Your task to perform on an android device: Search for custom made wallets on etsy.com Image 0: 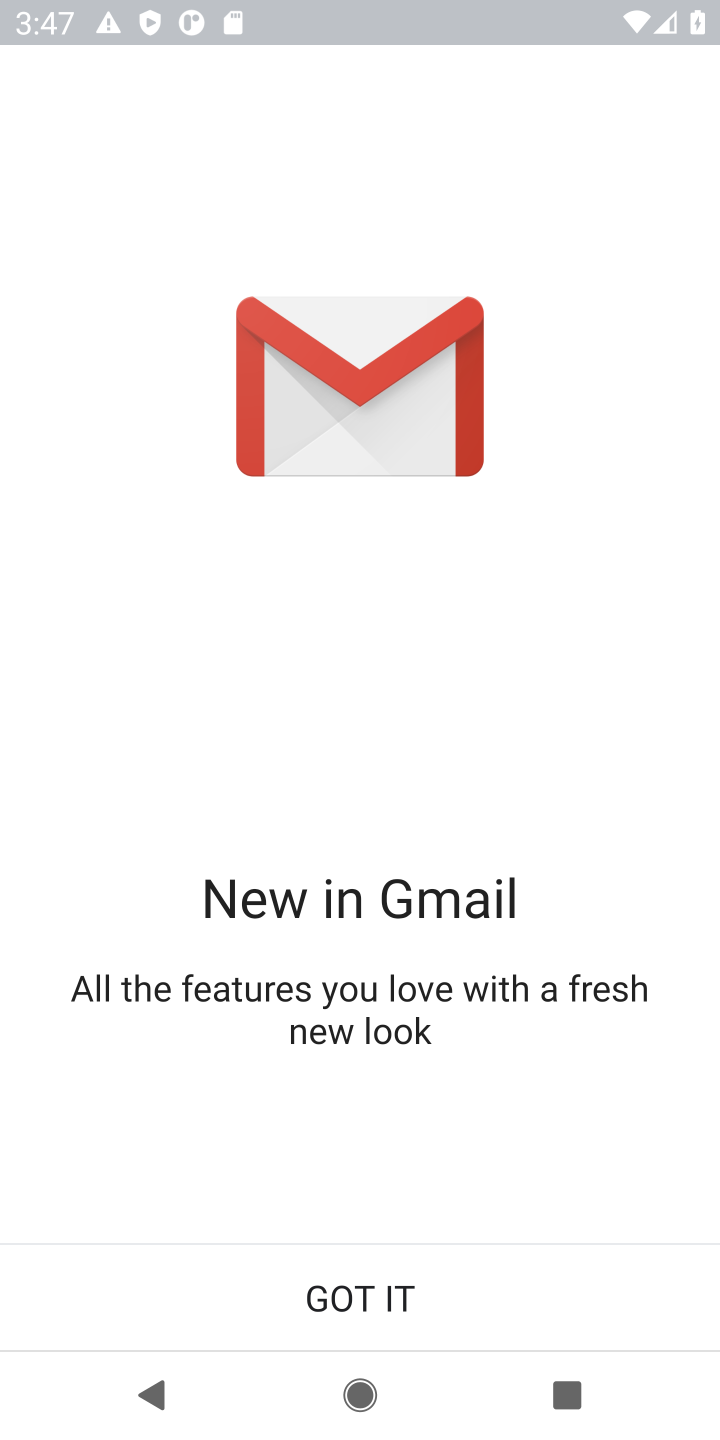
Step 0: press home button
Your task to perform on an android device: Search for custom made wallets on etsy.com Image 1: 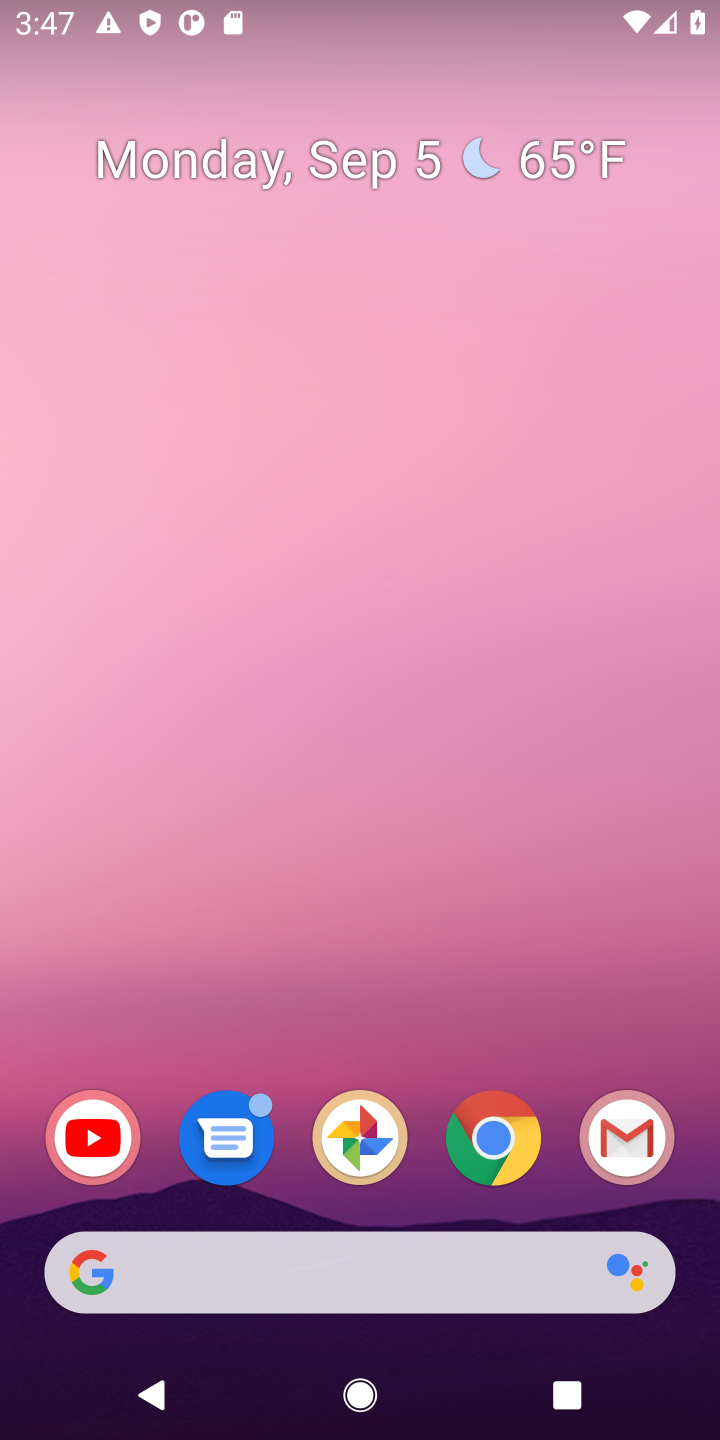
Step 1: click (498, 1143)
Your task to perform on an android device: Search for custom made wallets on etsy.com Image 2: 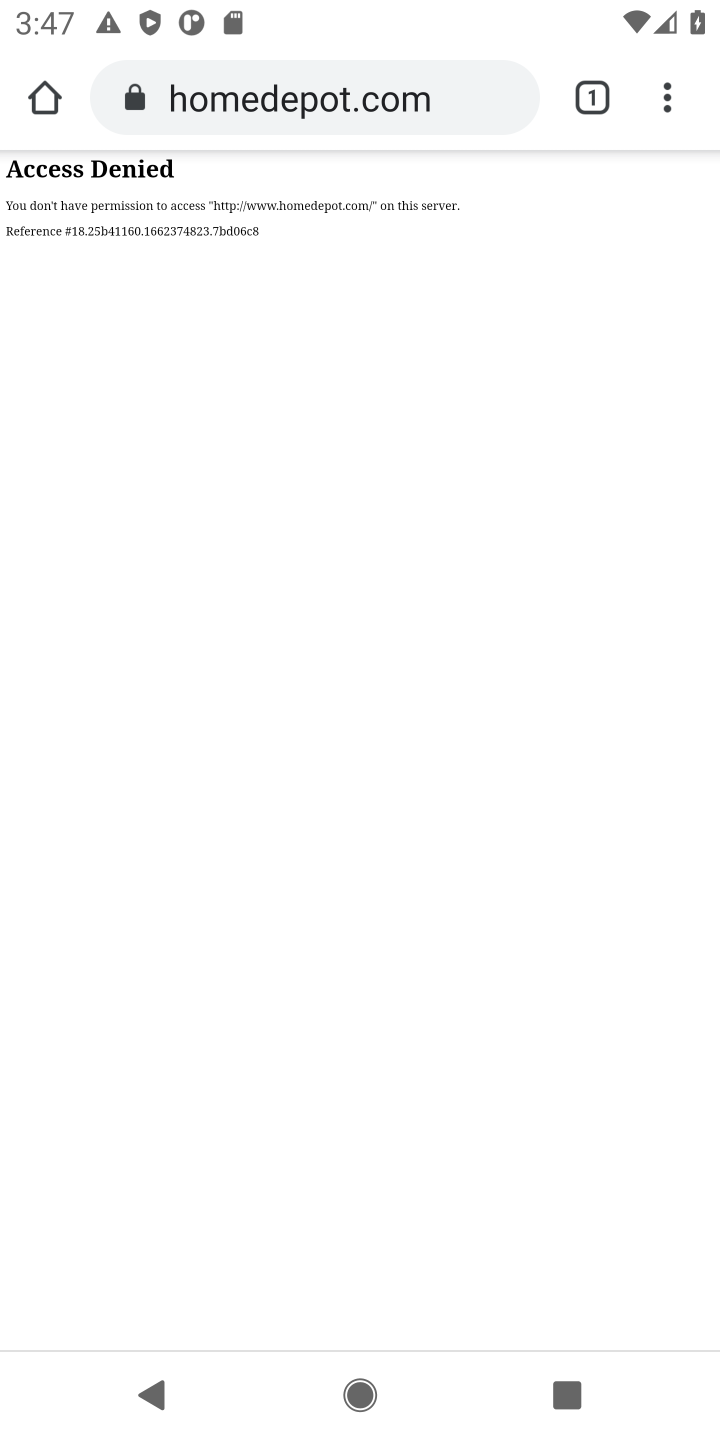
Step 2: click (225, 113)
Your task to perform on an android device: Search for custom made wallets on etsy.com Image 3: 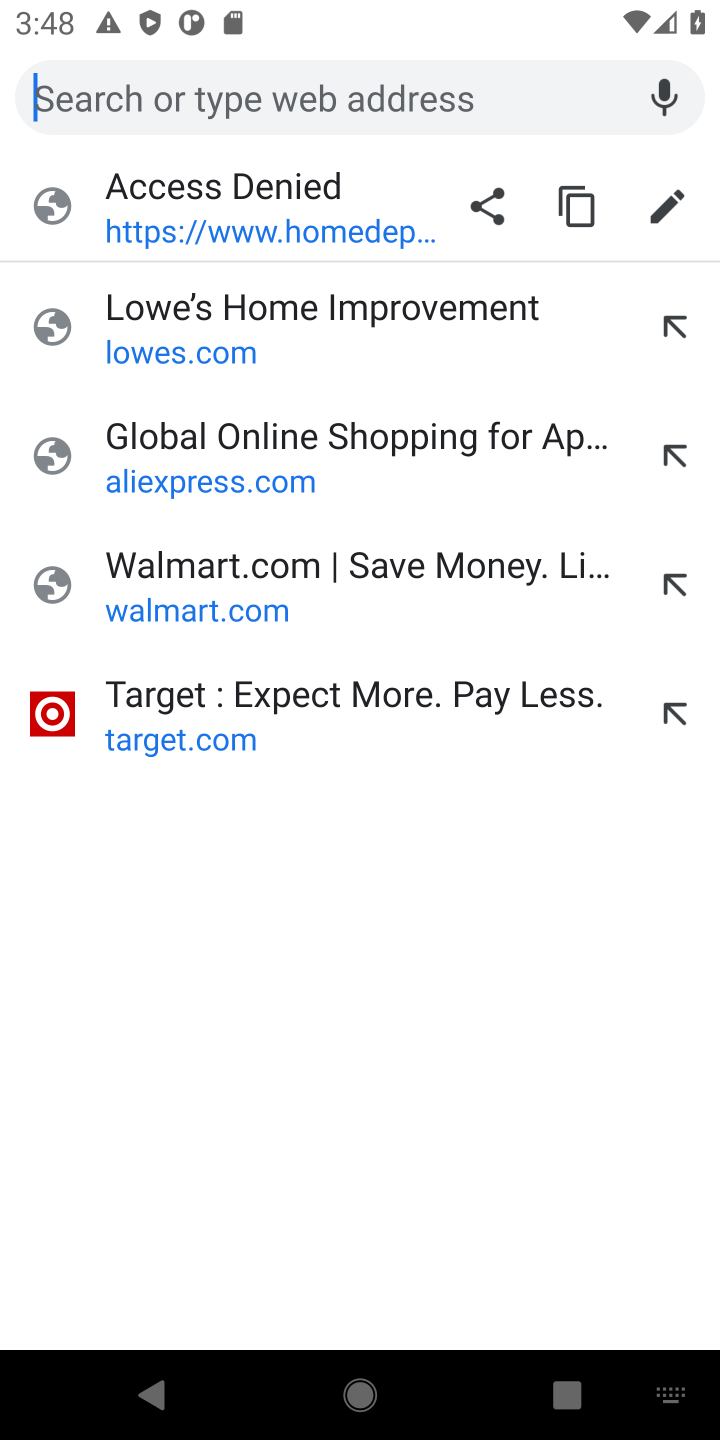
Step 3: type "etsy"
Your task to perform on an android device: Search for custom made wallets on etsy.com Image 4: 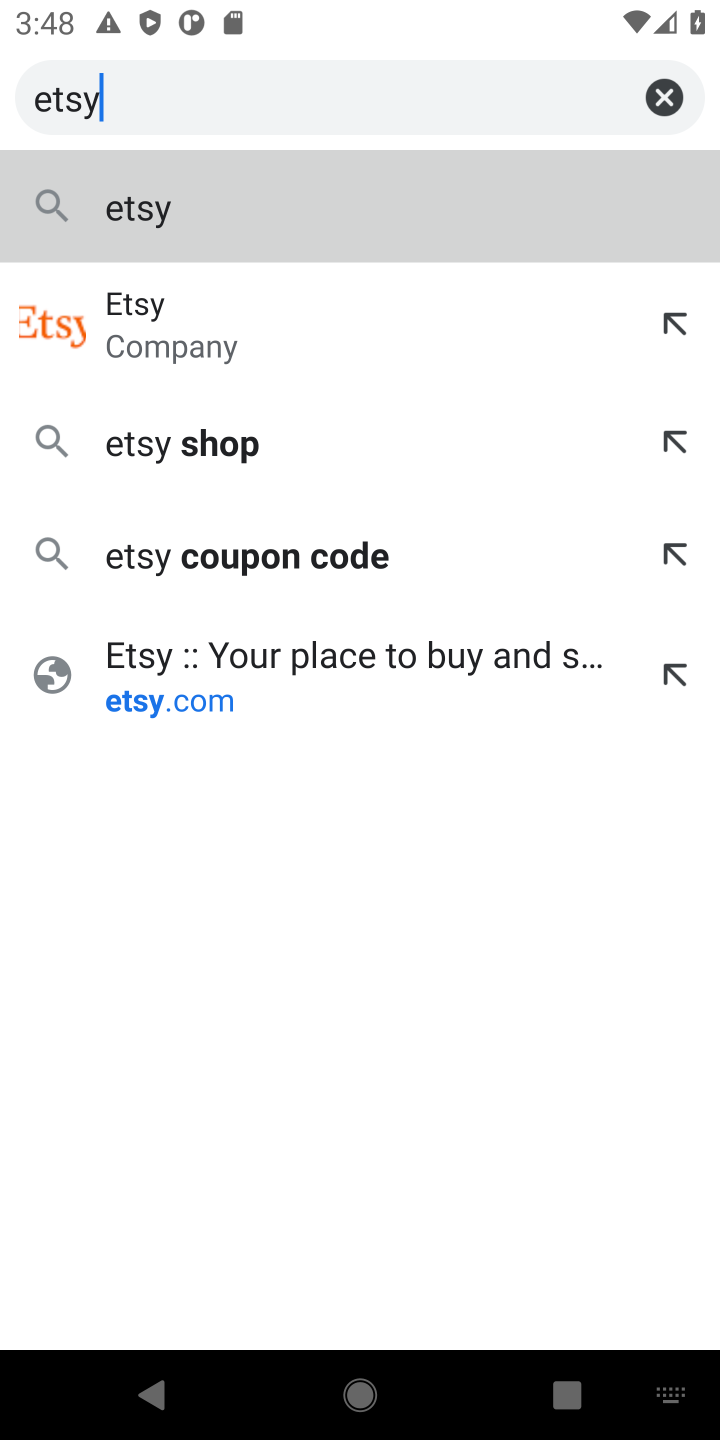
Step 4: click (326, 664)
Your task to perform on an android device: Search for custom made wallets on etsy.com Image 5: 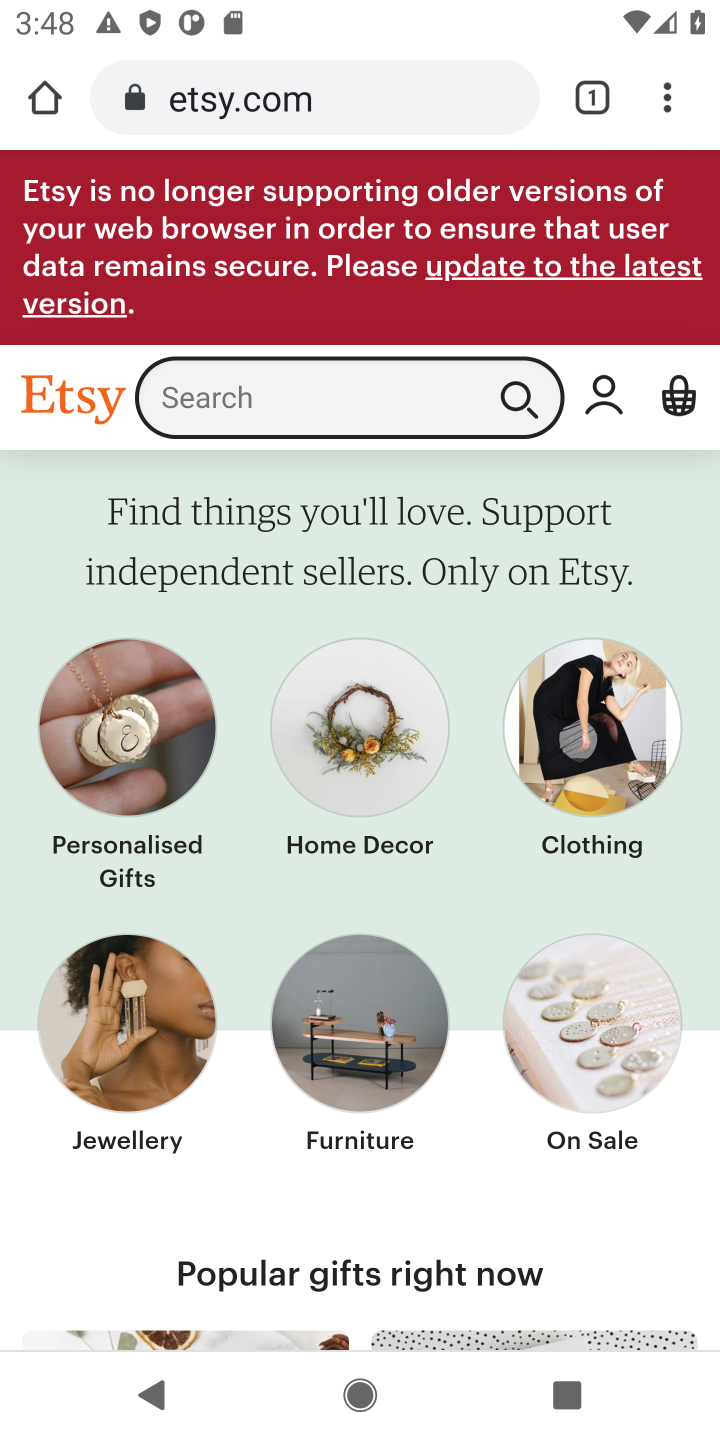
Step 5: click (305, 406)
Your task to perform on an android device: Search for custom made wallets on etsy.com Image 6: 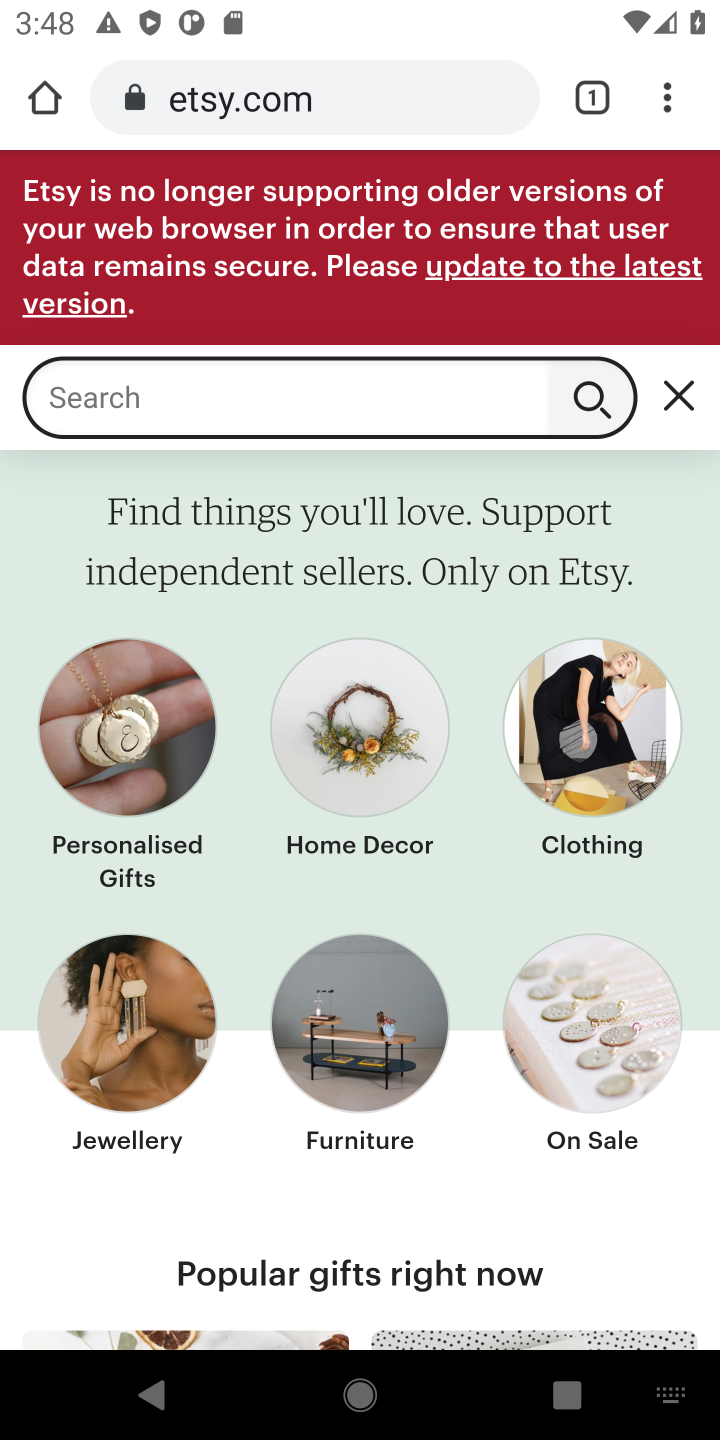
Step 6: type "custom made wallets"
Your task to perform on an android device: Search for custom made wallets on etsy.com Image 7: 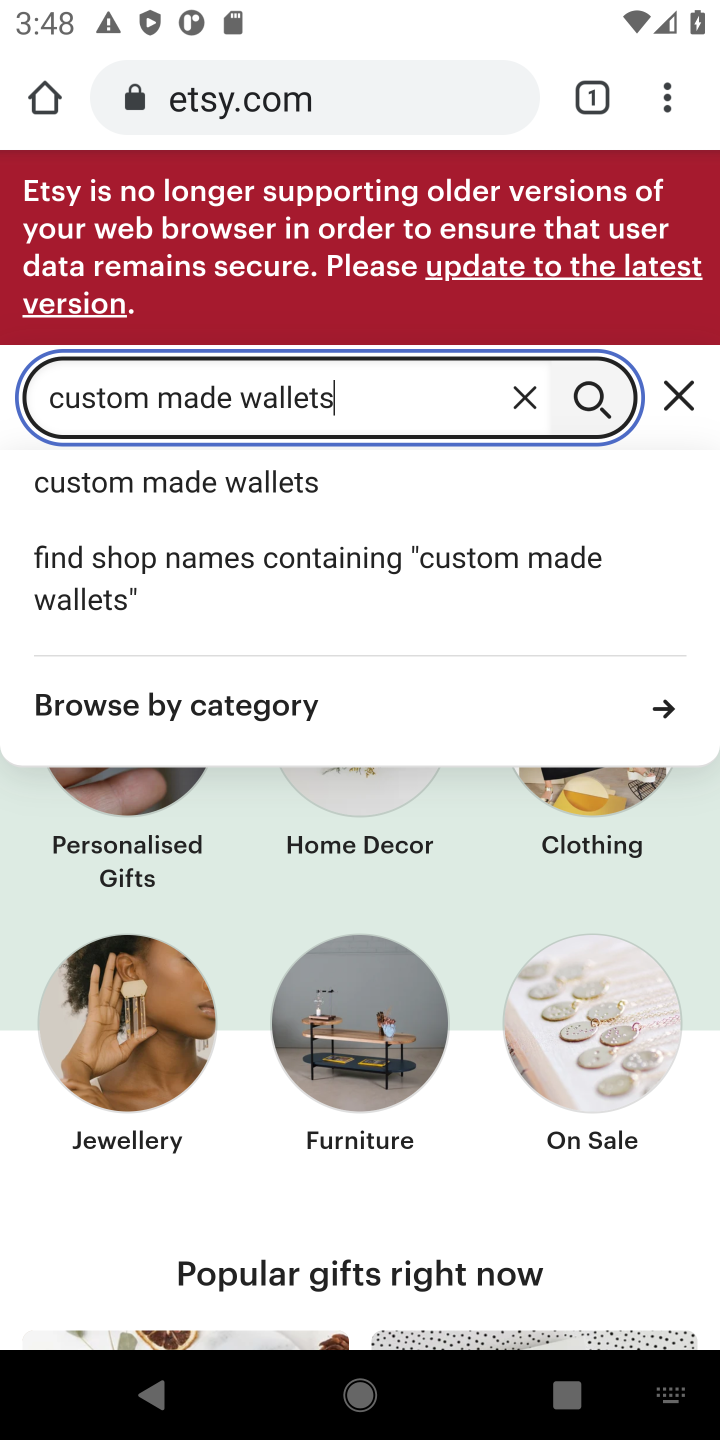
Step 7: click (314, 476)
Your task to perform on an android device: Search for custom made wallets on etsy.com Image 8: 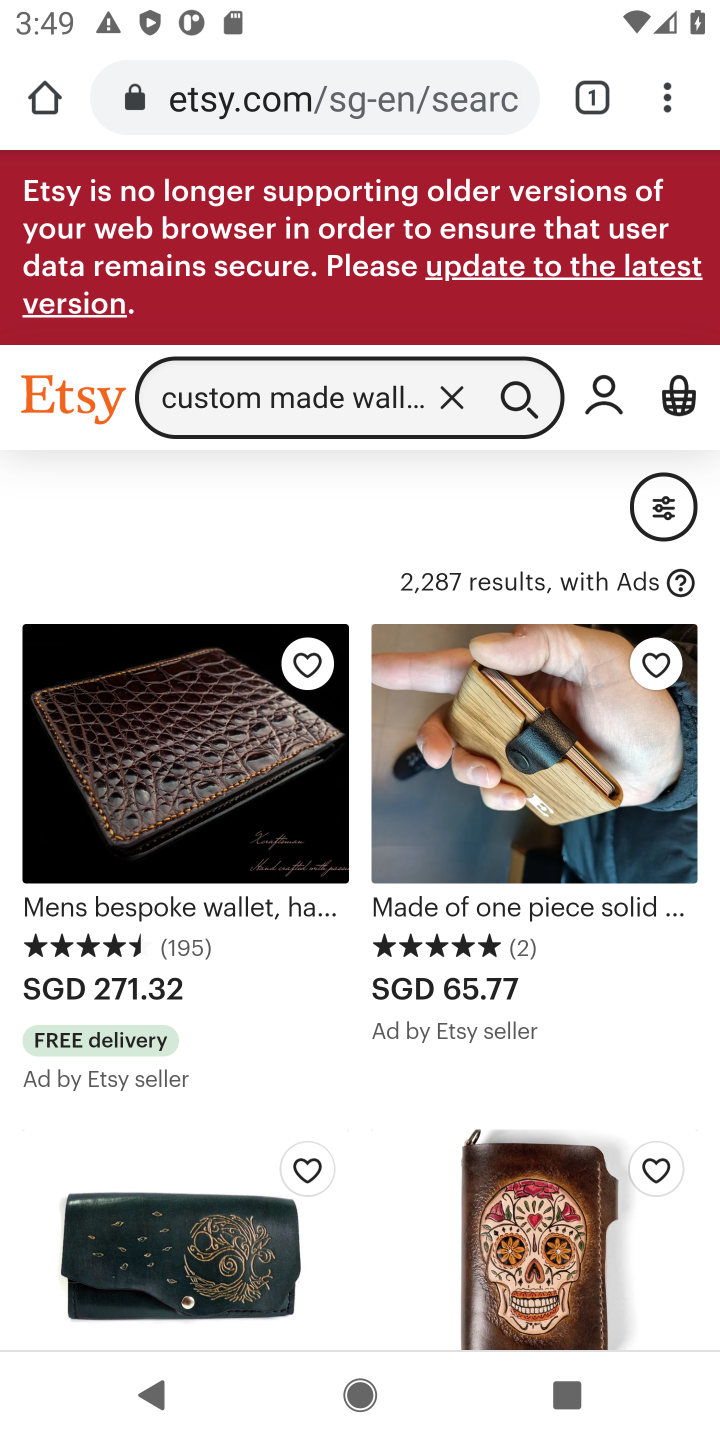
Step 8: task complete